Your task to perform on an android device: find which apps use the phone's location Image 0: 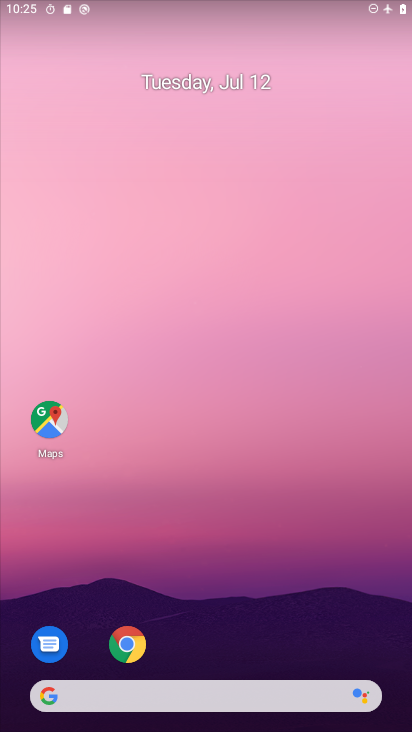
Step 0: drag from (211, 634) to (236, 22)
Your task to perform on an android device: find which apps use the phone's location Image 1: 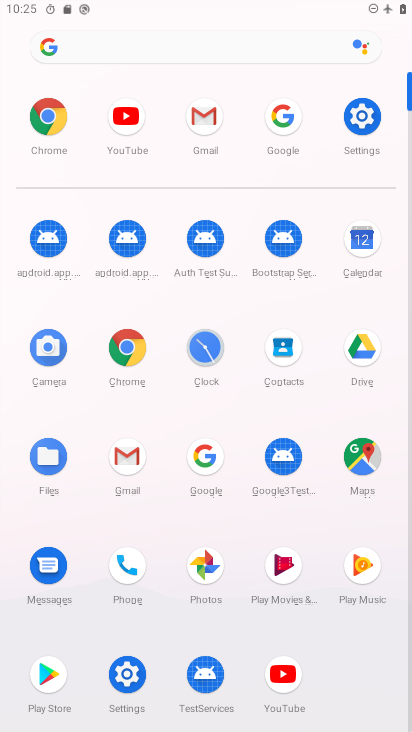
Step 1: click (346, 115)
Your task to perform on an android device: find which apps use the phone's location Image 2: 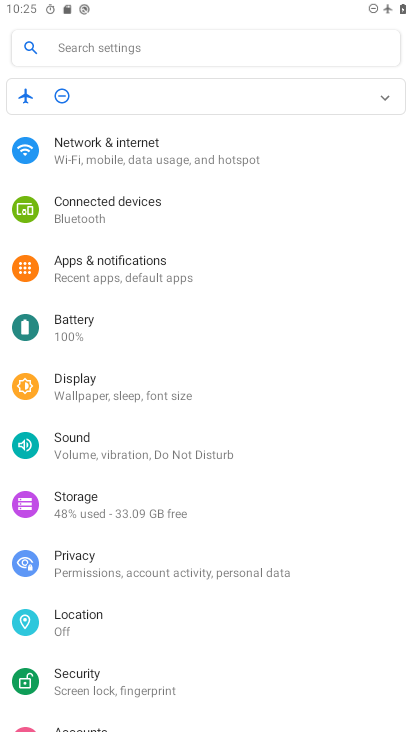
Step 2: click (104, 609)
Your task to perform on an android device: find which apps use the phone's location Image 3: 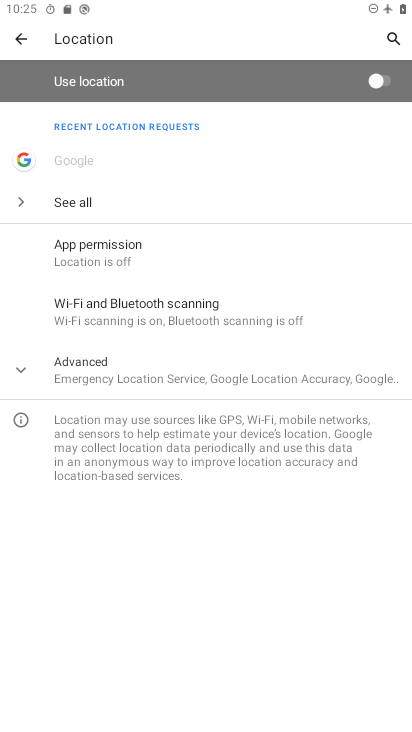
Step 3: click (120, 261)
Your task to perform on an android device: find which apps use the phone's location Image 4: 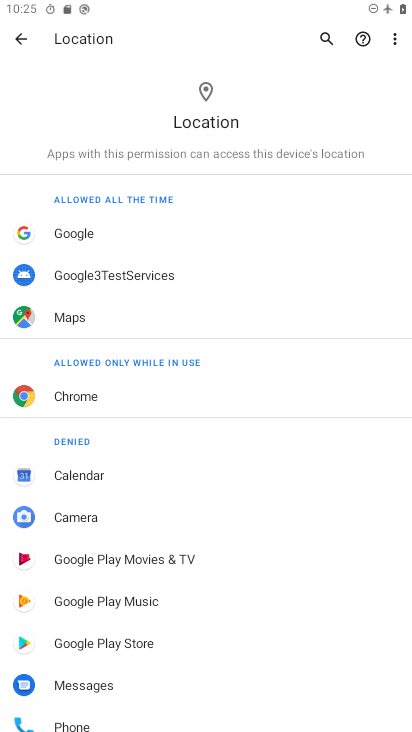
Step 4: task complete